Your task to perform on an android device: Open ESPN.com Image 0: 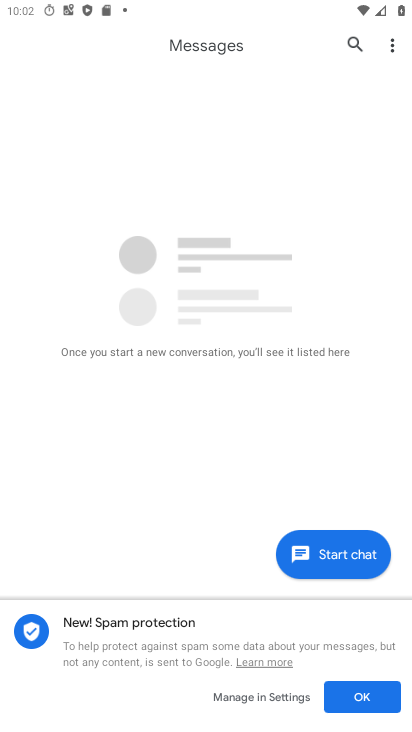
Step 0: press home button
Your task to perform on an android device: Open ESPN.com Image 1: 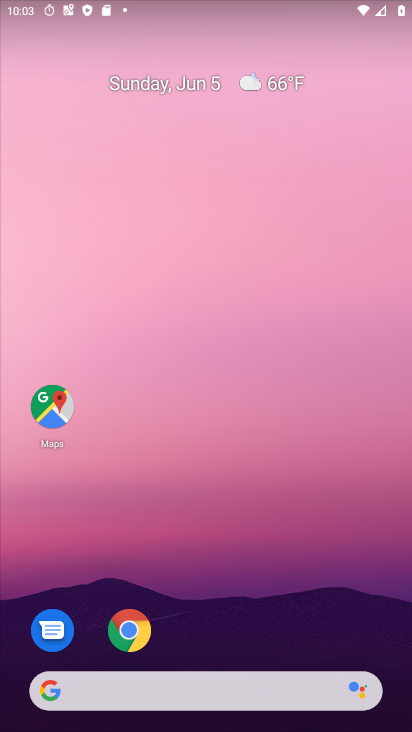
Step 1: click (128, 630)
Your task to perform on an android device: Open ESPN.com Image 2: 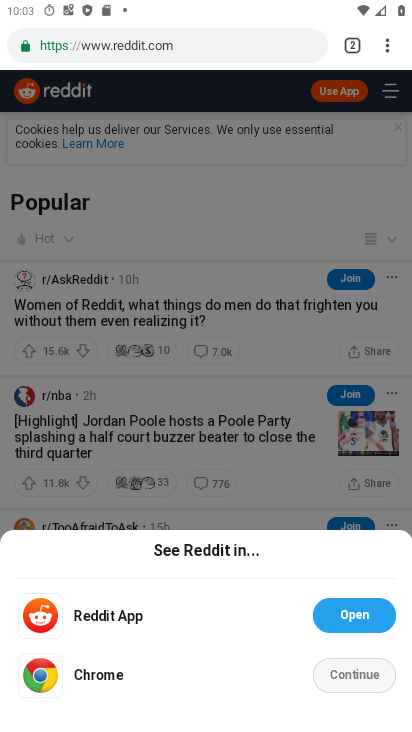
Step 2: click (388, 53)
Your task to perform on an android device: Open ESPN.com Image 3: 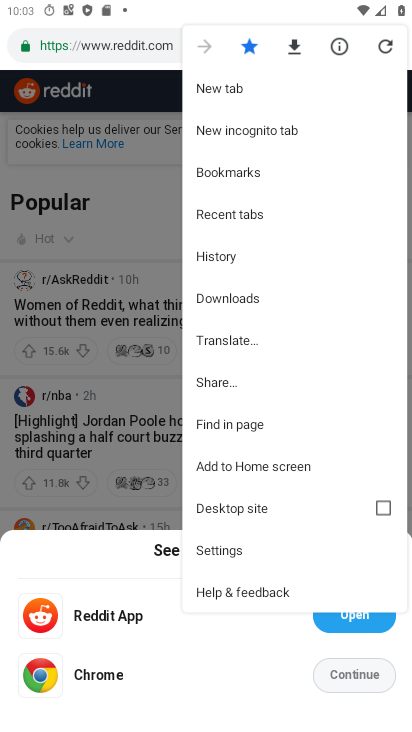
Step 3: click (229, 88)
Your task to perform on an android device: Open ESPN.com Image 4: 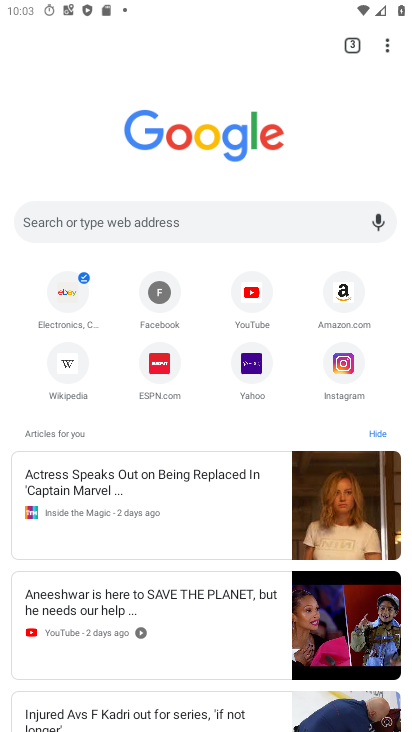
Step 4: click (157, 362)
Your task to perform on an android device: Open ESPN.com Image 5: 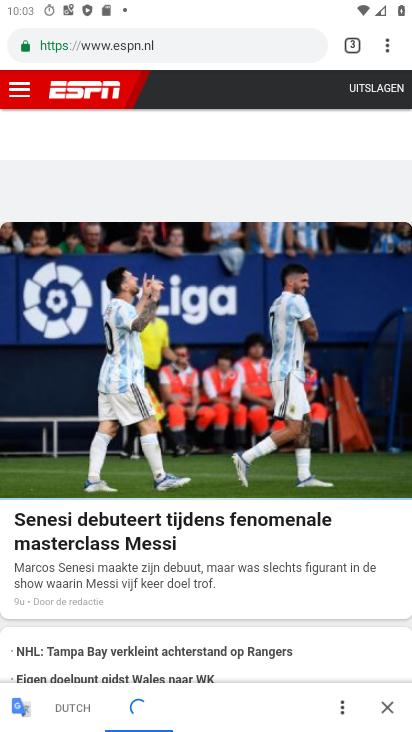
Step 5: task complete